Your task to perform on an android device: Toggle the flashlight Image 0: 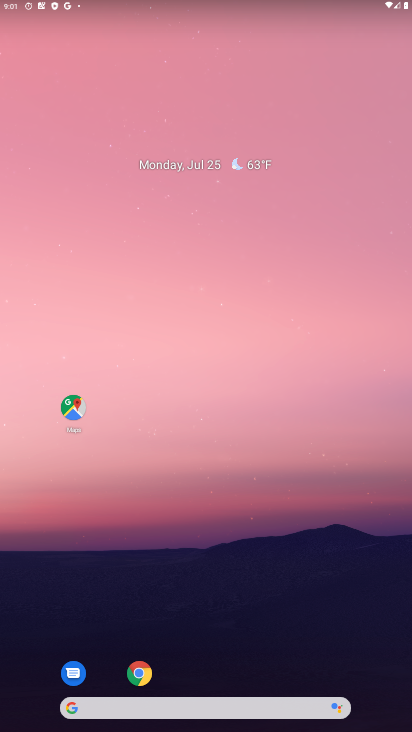
Step 0: drag from (205, 677) to (263, 50)
Your task to perform on an android device: Toggle the flashlight Image 1: 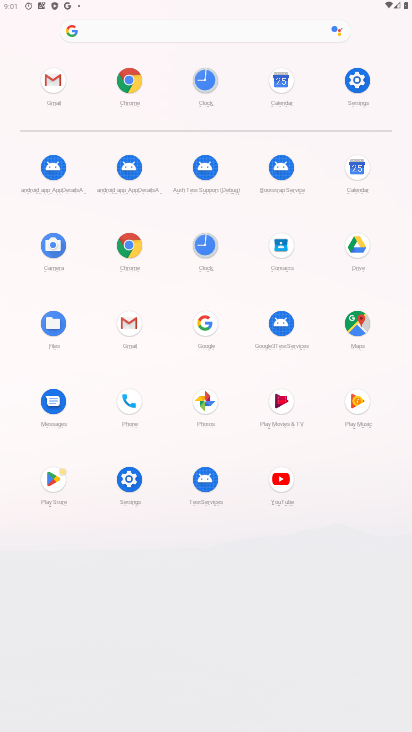
Step 1: click (132, 474)
Your task to perform on an android device: Toggle the flashlight Image 2: 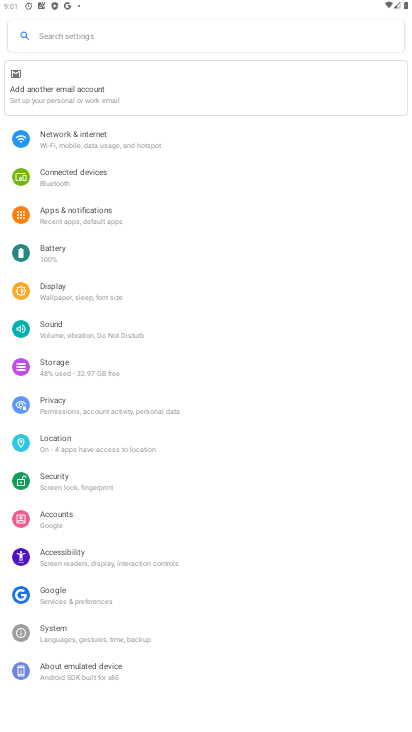
Step 2: click (109, 28)
Your task to perform on an android device: Toggle the flashlight Image 3: 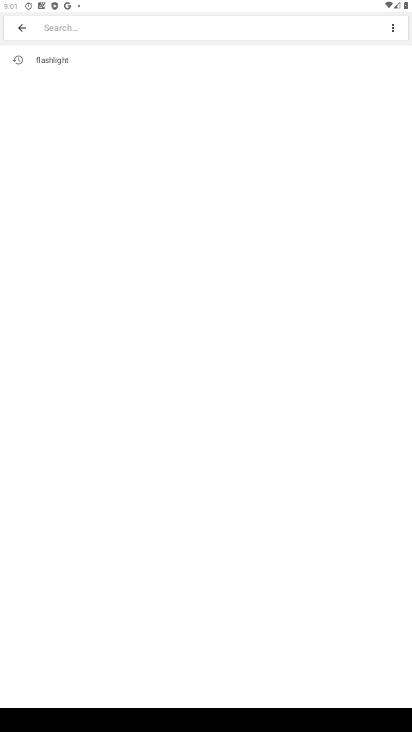
Step 3: type "flashlight"
Your task to perform on an android device: Toggle the flashlight Image 4: 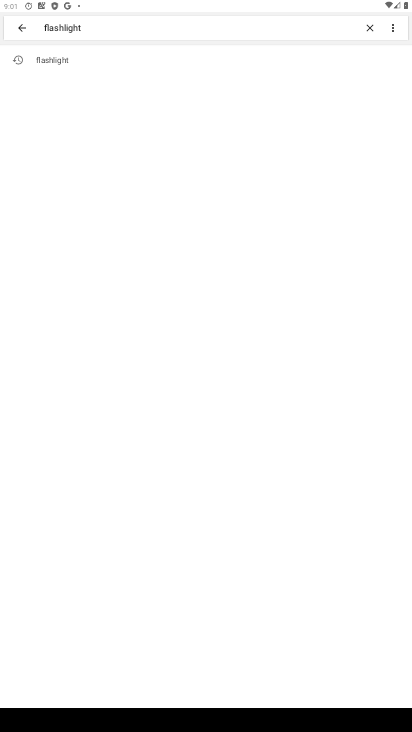
Step 4: click (113, 55)
Your task to perform on an android device: Toggle the flashlight Image 5: 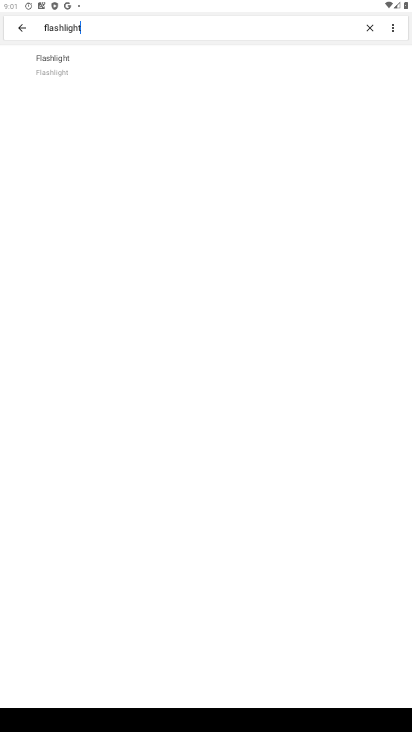
Step 5: drag from (256, 585) to (255, 137)
Your task to perform on an android device: Toggle the flashlight Image 6: 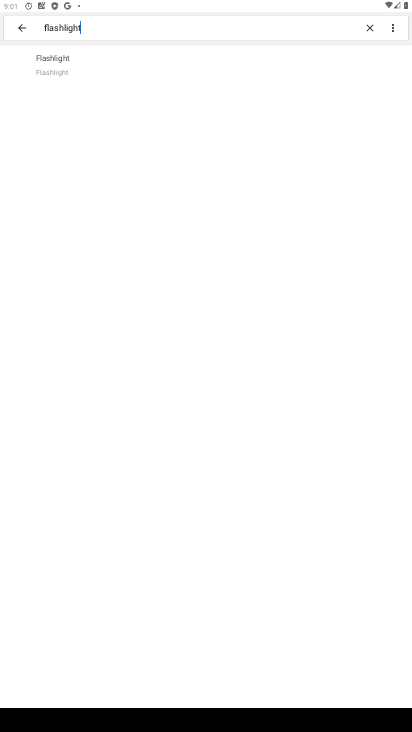
Step 6: click (49, 78)
Your task to perform on an android device: Toggle the flashlight Image 7: 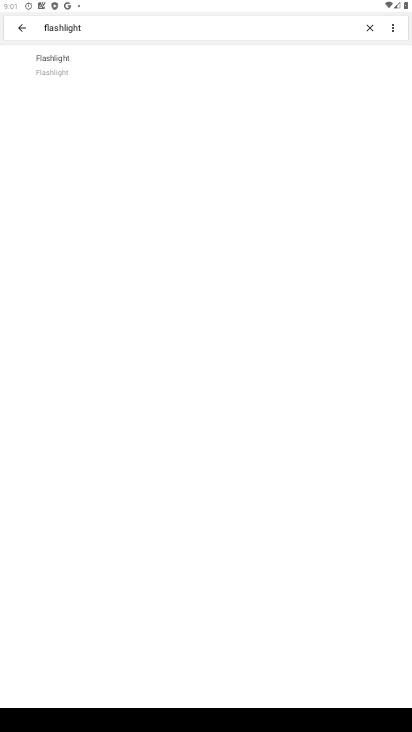
Step 7: click (53, 75)
Your task to perform on an android device: Toggle the flashlight Image 8: 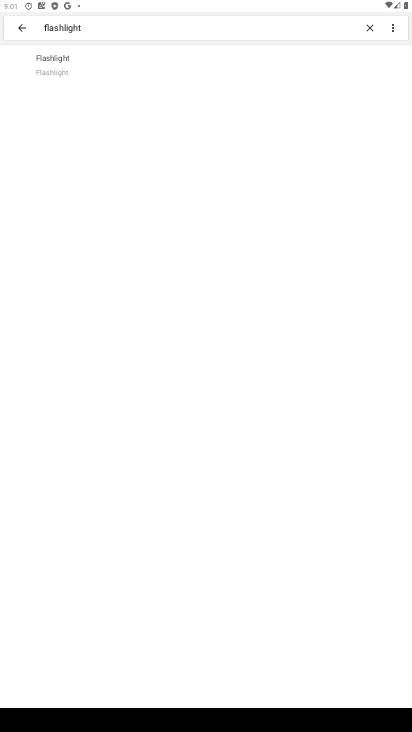
Step 8: click (53, 75)
Your task to perform on an android device: Toggle the flashlight Image 9: 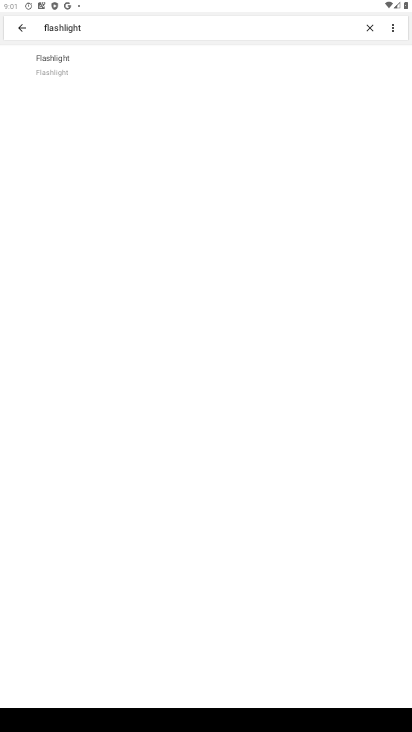
Step 9: drag from (263, 567) to (304, 233)
Your task to perform on an android device: Toggle the flashlight Image 10: 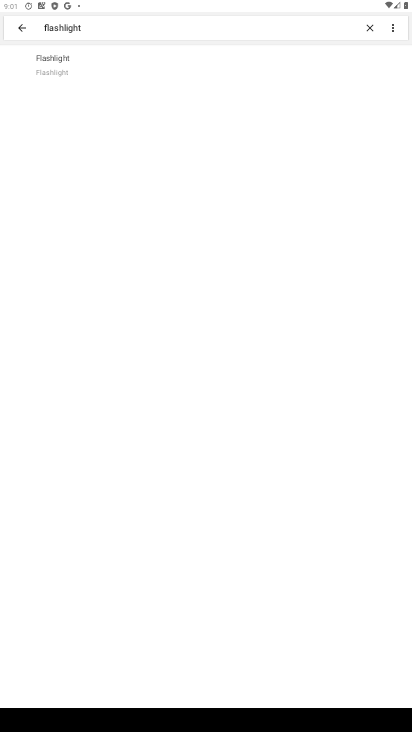
Step 10: drag from (152, 186) to (181, 79)
Your task to perform on an android device: Toggle the flashlight Image 11: 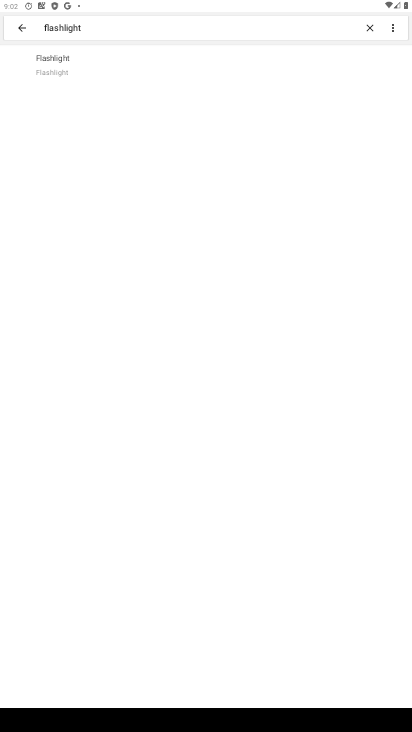
Step 11: drag from (183, 503) to (231, 164)
Your task to perform on an android device: Toggle the flashlight Image 12: 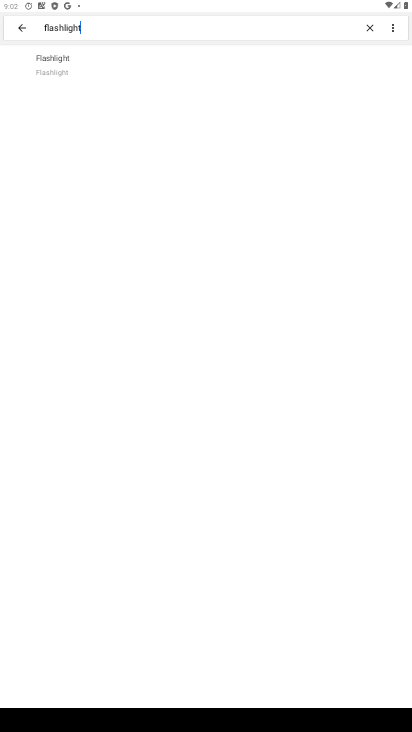
Step 12: click (116, 55)
Your task to perform on an android device: Toggle the flashlight Image 13: 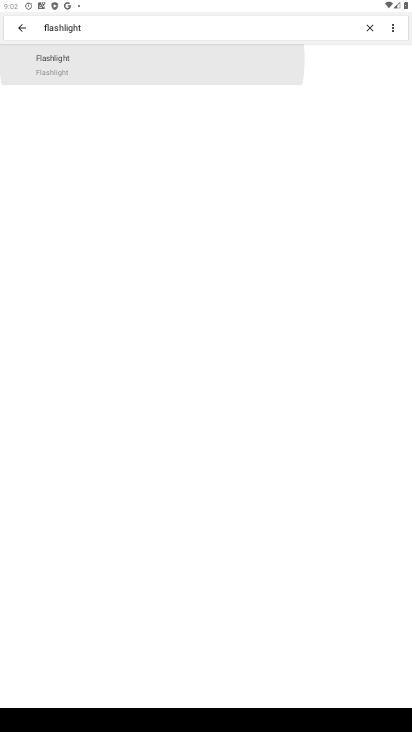
Step 13: click (114, 55)
Your task to perform on an android device: Toggle the flashlight Image 14: 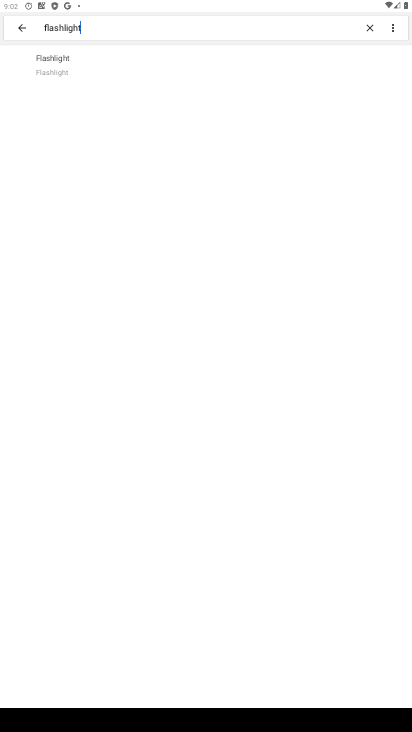
Step 14: click (56, 75)
Your task to perform on an android device: Toggle the flashlight Image 15: 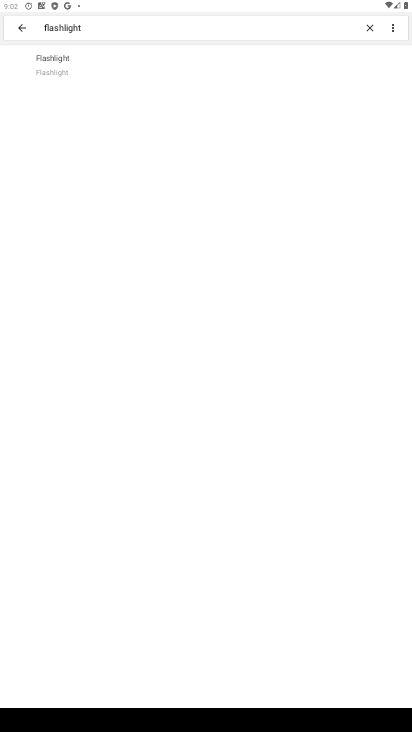
Step 15: drag from (284, 451) to (295, 74)
Your task to perform on an android device: Toggle the flashlight Image 16: 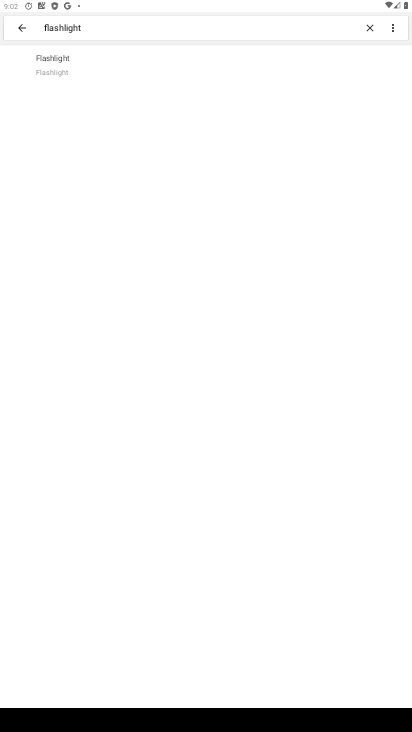
Step 16: click (77, 57)
Your task to perform on an android device: Toggle the flashlight Image 17: 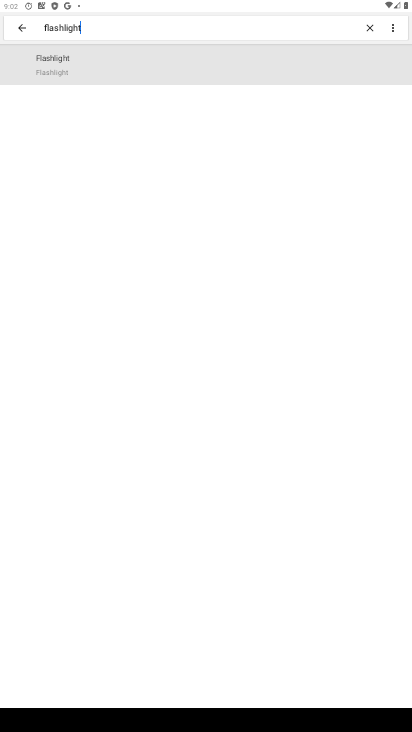
Step 17: click (77, 57)
Your task to perform on an android device: Toggle the flashlight Image 18: 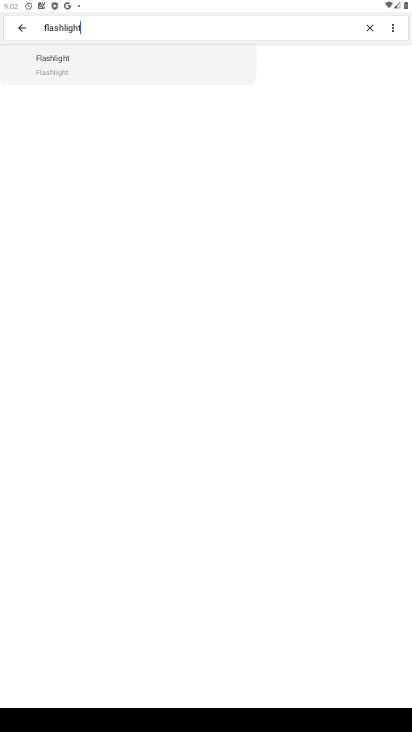
Step 18: click (77, 57)
Your task to perform on an android device: Toggle the flashlight Image 19: 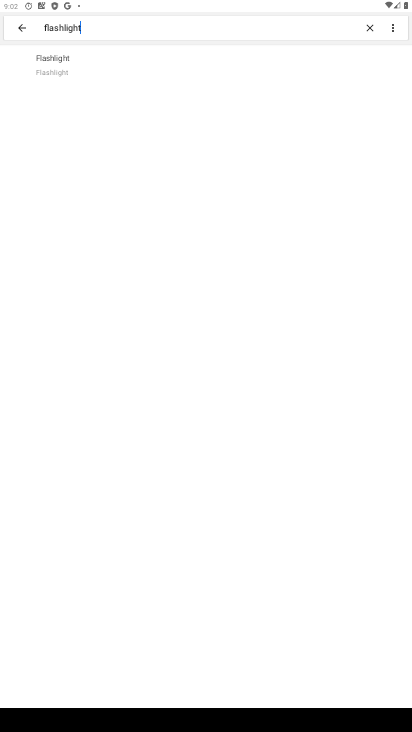
Step 19: click (100, 67)
Your task to perform on an android device: Toggle the flashlight Image 20: 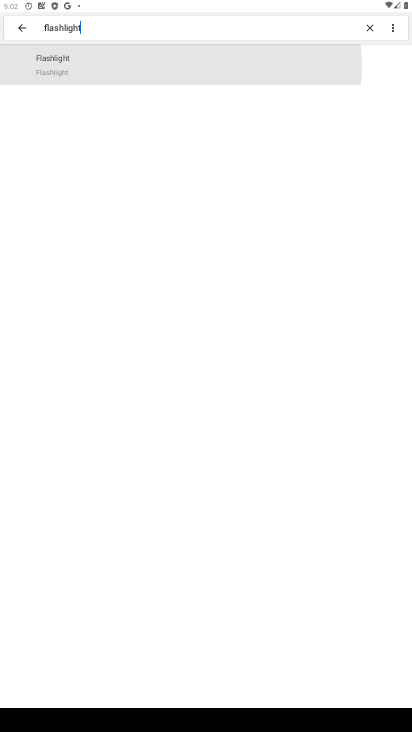
Step 20: click (100, 67)
Your task to perform on an android device: Toggle the flashlight Image 21: 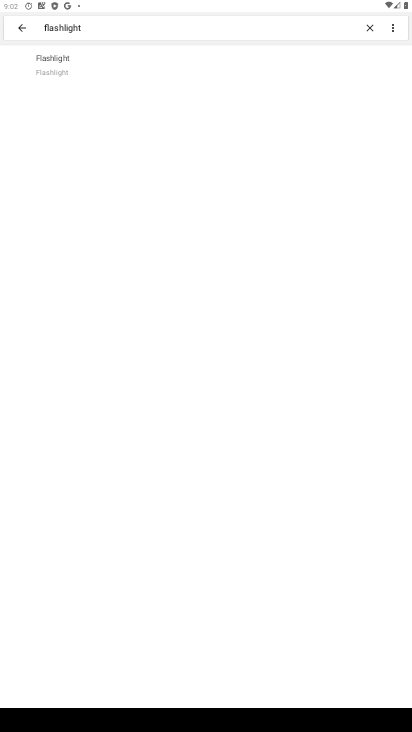
Step 21: task complete